Your task to perform on an android device: stop showing notifications on the lock screen Image 0: 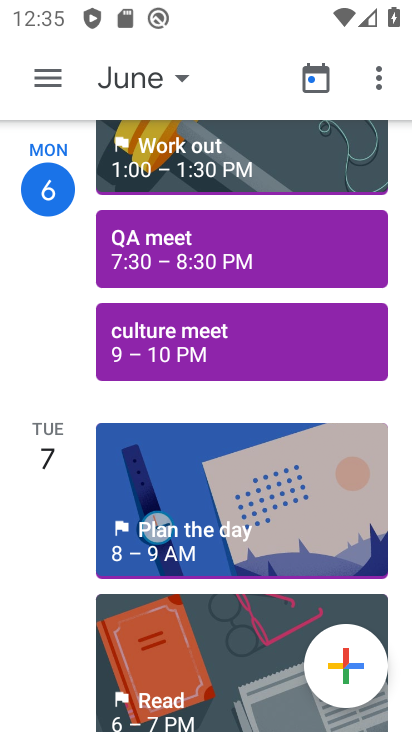
Step 0: press home button
Your task to perform on an android device: stop showing notifications on the lock screen Image 1: 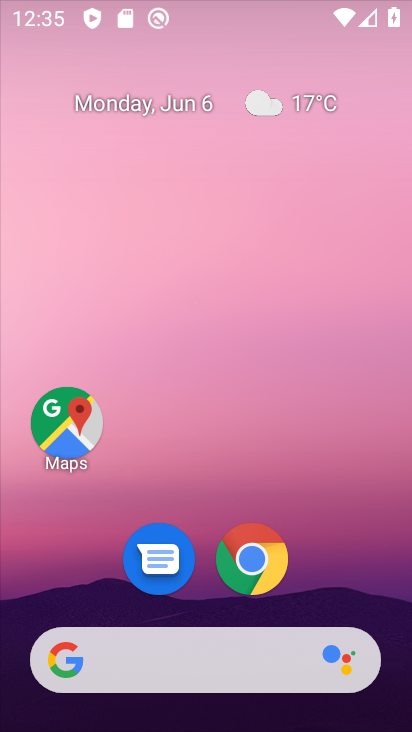
Step 1: drag from (329, 668) to (293, 5)
Your task to perform on an android device: stop showing notifications on the lock screen Image 2: 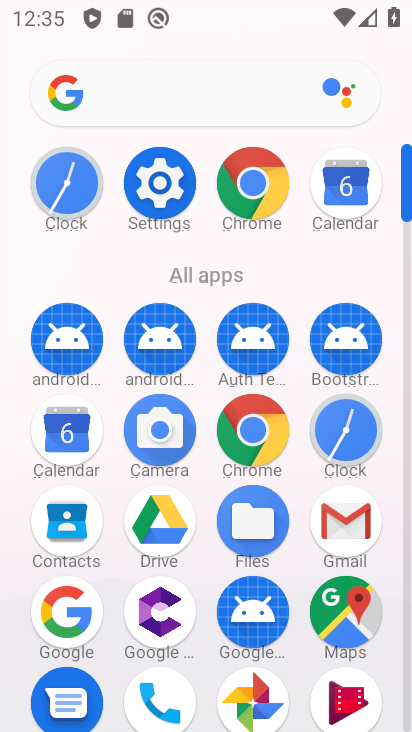
Step 2: click (163, 215)
Your task to perform on an android device: stop showing notifications on the lock screen Image 3: 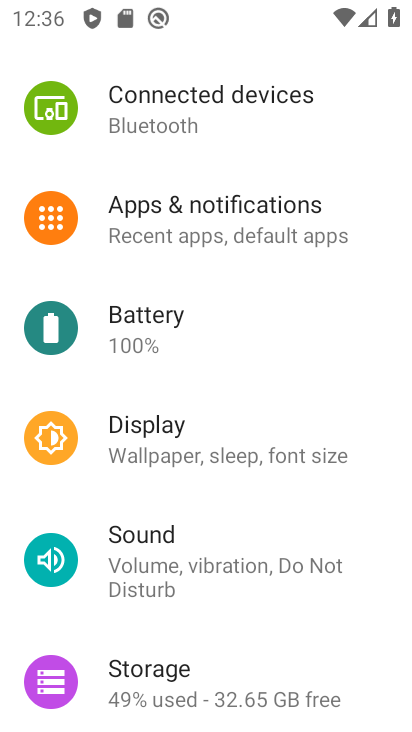
Step 3: click (188, 229)
Your task to perform on an android device: stop showing notifications on the lock screen Image 4: 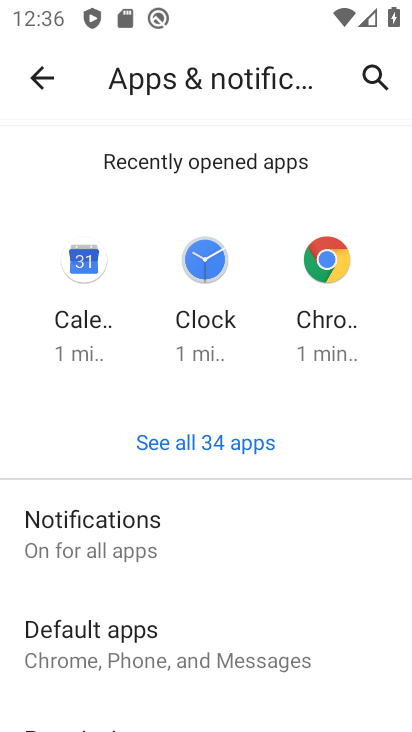
Step 4: click (170, 547)
Your task to perform on an android device: stop showing notifications on the lock screen Image 5: 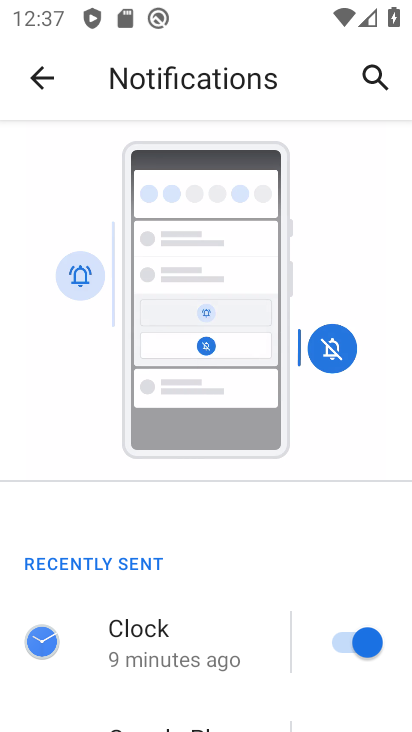
Step 5: drag from (150, 613) to (196, 221)
Your task to perform on an android device: stop showing notifications on the lock screen Image 6: 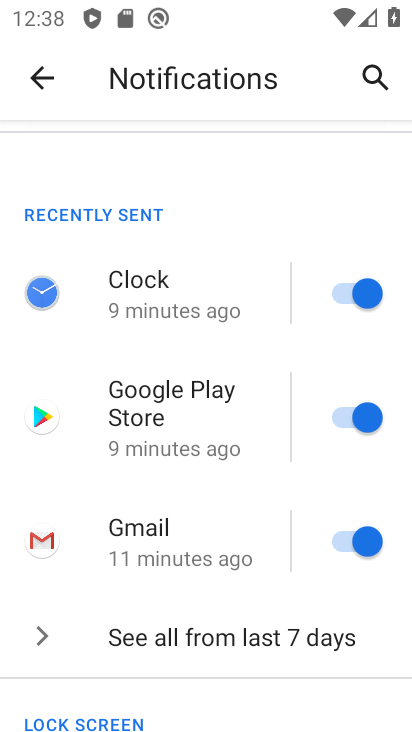
Step 6: drag from (180, 514) to (187, 88)
Your task to perform on an android device: stop showing notifications on the lock screen Image 7: 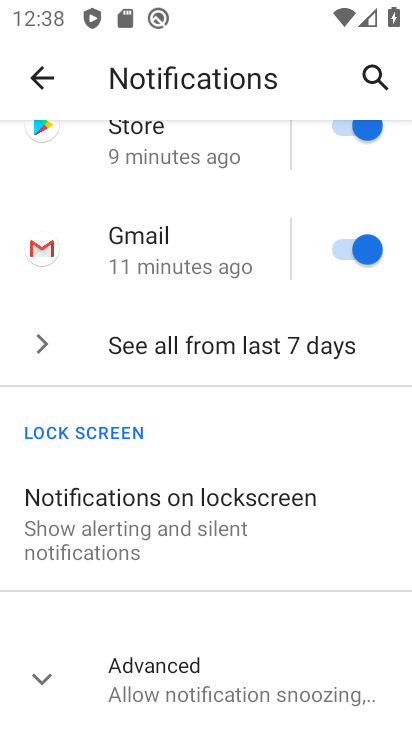
Step 7: click (227, 516)
Your task to perform on an android device: stop showing notifications on the lock screen Image 8: 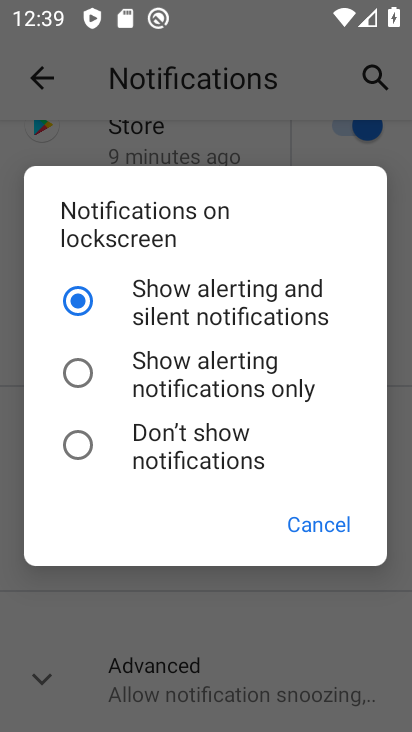
Step 8: click (220, 460)
Your task to perform on an android device: stop showing notifications on the lock screen Image 9: 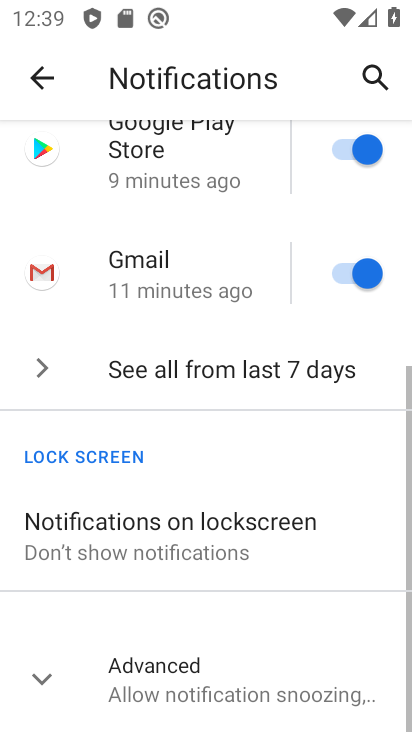
Step 9: task complete